Your task to perform on an android device: turn on improve location accuracy Image 0: 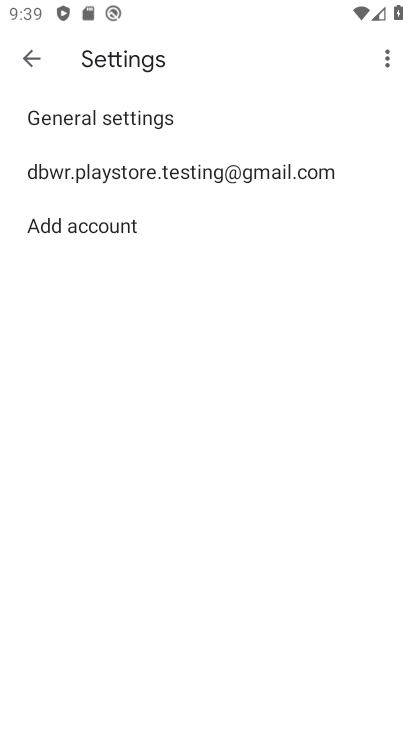
Step 0: press home button
Your task to perform on an android device: turn on improve location accuracy Image 1: 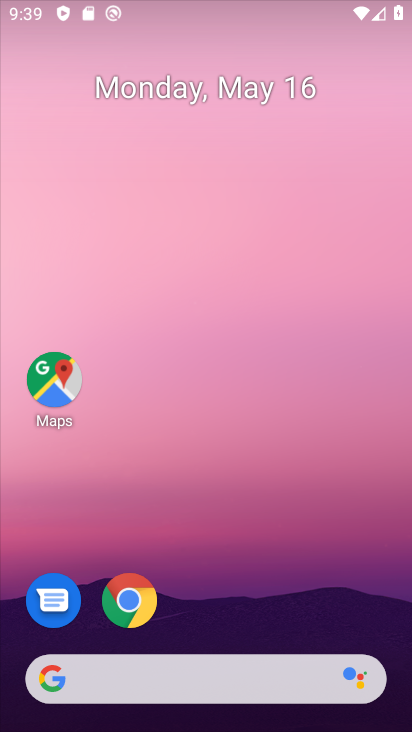
Step 1: drag from (271, 559) to (288, 220)
Your task to perform on an android device: turn on improve location accuracy Image 2: 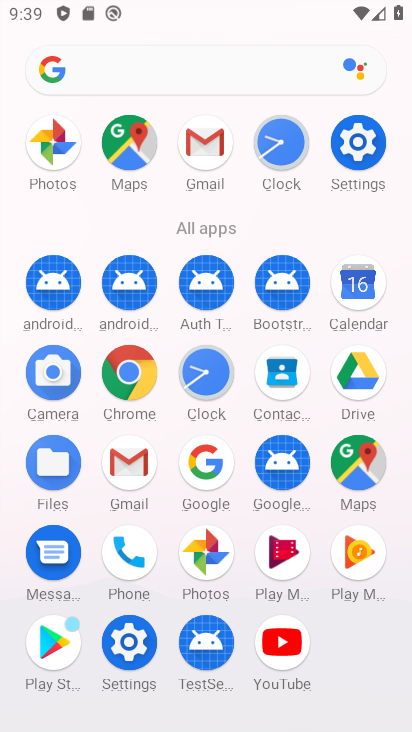
Step 2: click (357, 149)
Your task to perform on an android device: turn on improve location accuracy Image 3: 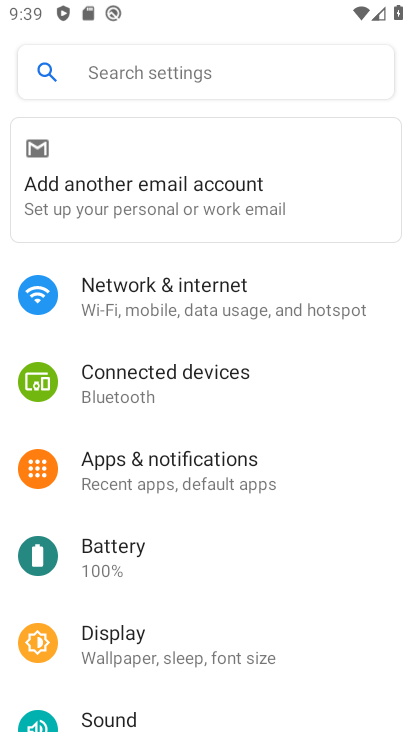
Step 3: drag from (317, 549) to (285, 293)
Your task to perform on an android device: turn on improve location accuracy Image 4: 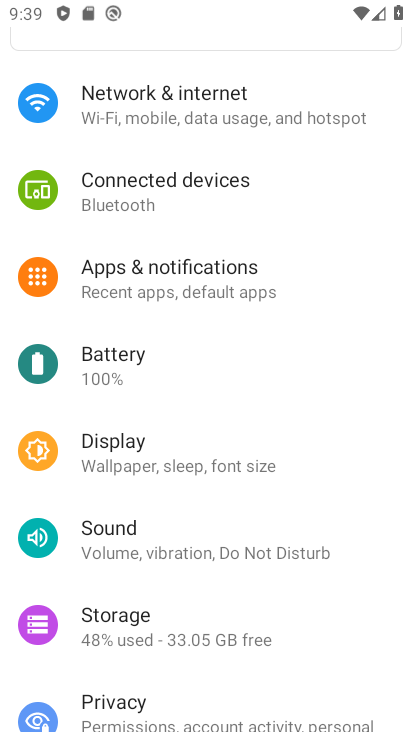
Step 4: drag from (303, 590) to (307, 329)
Your task to perform on an android device: turn on improve location accuracy Image 5: 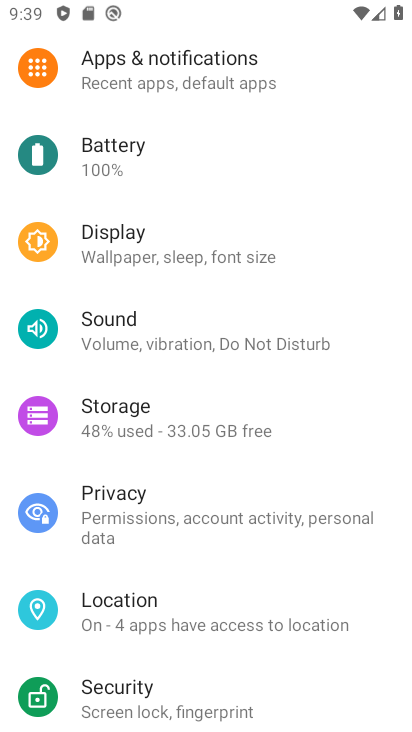
Step 5: click (191, 585)
Your task to perform on an android device: turn on improve location accuracy Image 6: 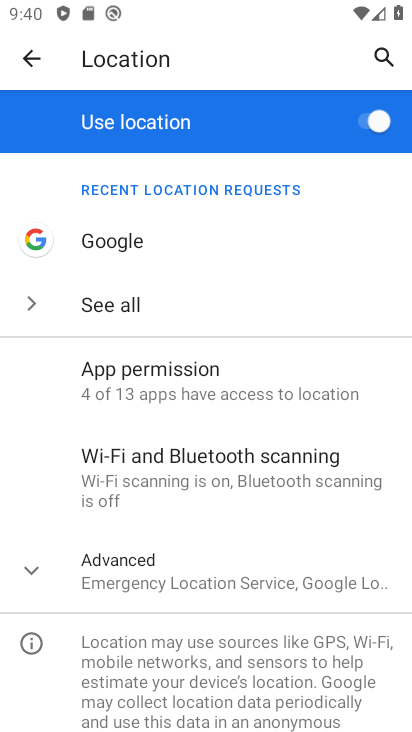
Step 6: click (198, 576)
Your task to perform on an android device: turn on improve location accuracy Image 7: 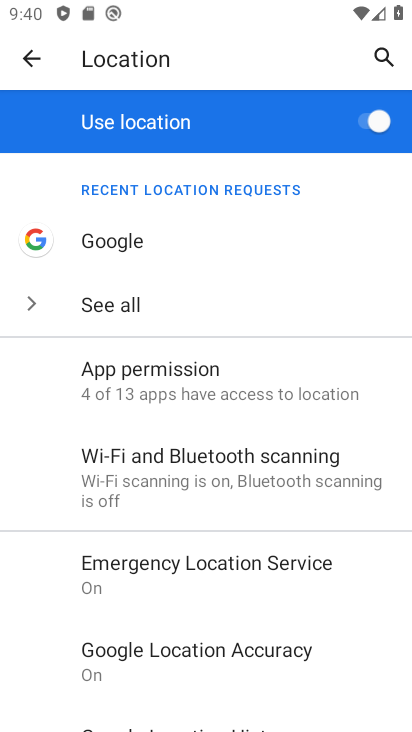
Step 7: drag from (316, 665) to (314, 476)
Your task to perform on an android device: turn on improve location accuracy Image 8: 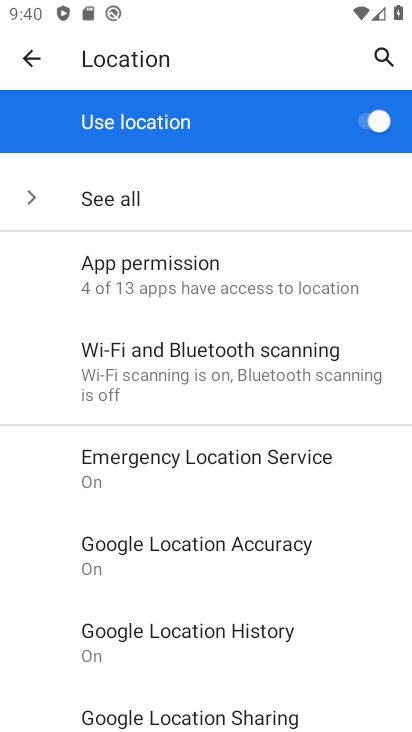
Step 8: click (241, 546)
Your task to perform on an android device: turn on improve location accuracy Image 9: 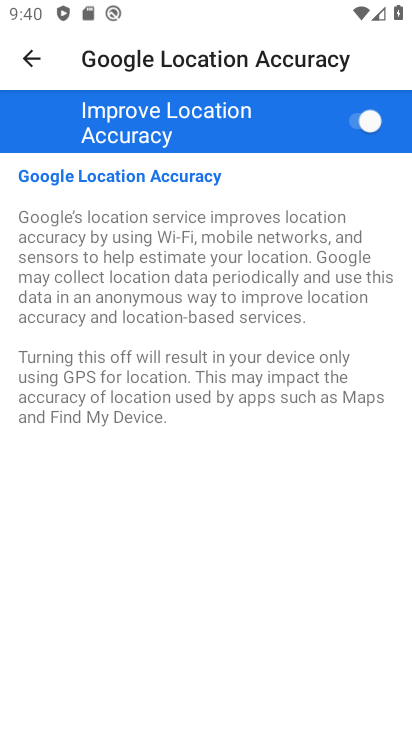
Step 9: task complete